Your task to perform on an android device: set the timer Image 0: 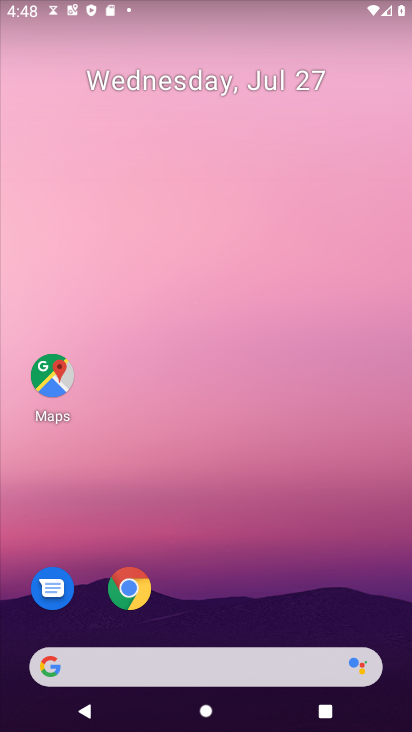
Step 0: drag from (226, 724) to (226, 138)
Your task to perform on an android device: set the timer Image 1: 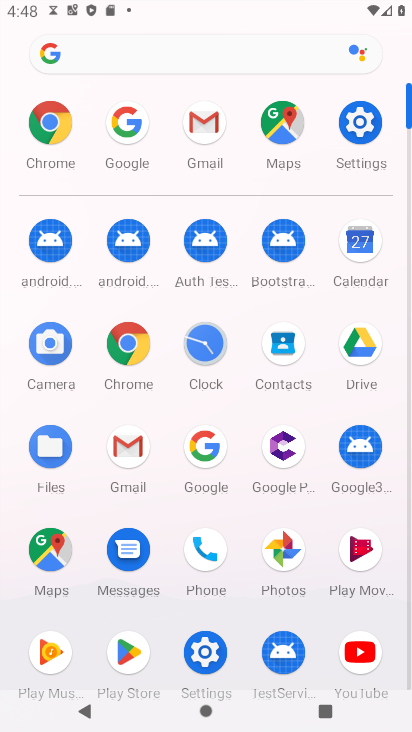
Step 1: click (203, 337)
Your task to perform on an android device: set the timer Image 2: 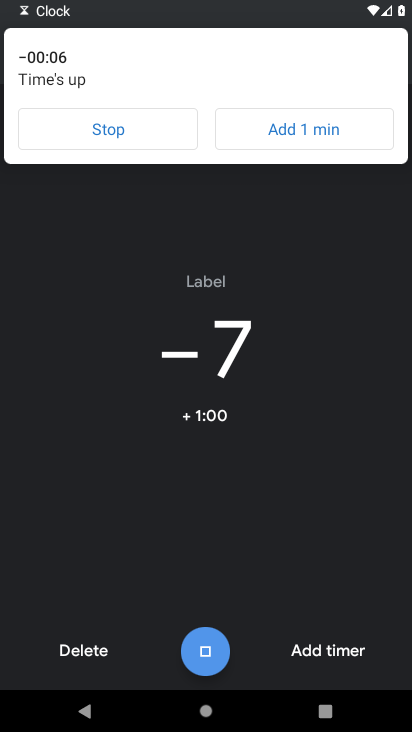
Step 2: click (313, 652)
Your task to perform on an android device: set the timer Image 3: 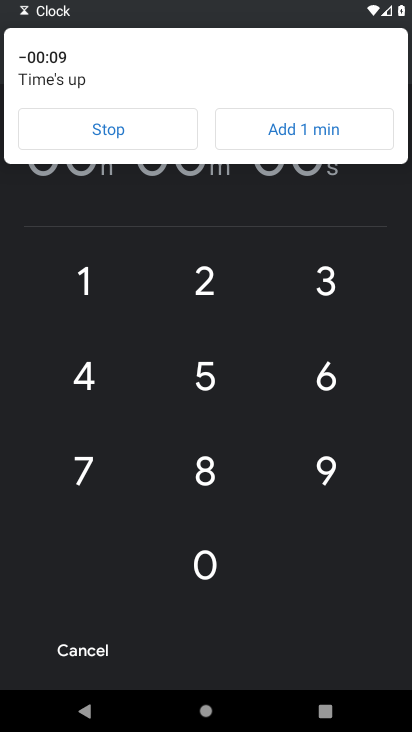
Step 3: click (198, 382)
Your task to perform on an android device: set the timer Image 4: 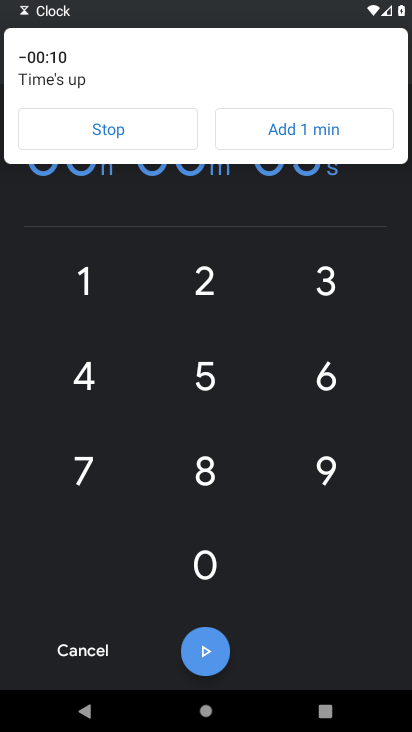
Step 4: click (206, 480)
Your task to perform on an android device: set the timer Image 5: 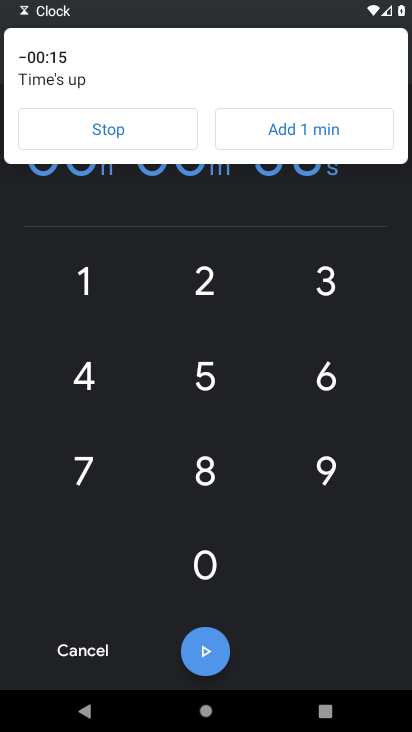
Step 5: click (207, 648)
Your task to perform on an android device: set the timer Image 6: 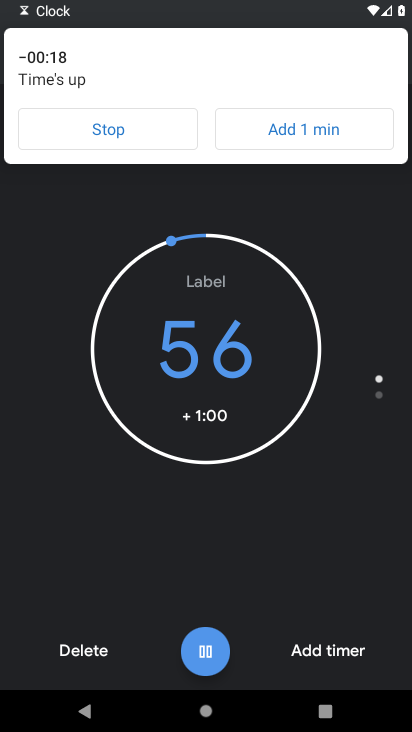
Step 6: task complete